Your task to perform on an android device: visit the assistant section in the google photos Image 0: 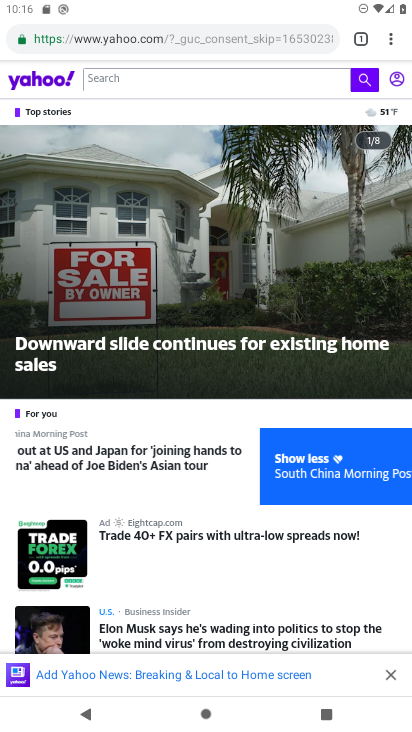
Step 0: press home button
Your task to perform on an android device: visit the assistant section in the google photos Image 1: 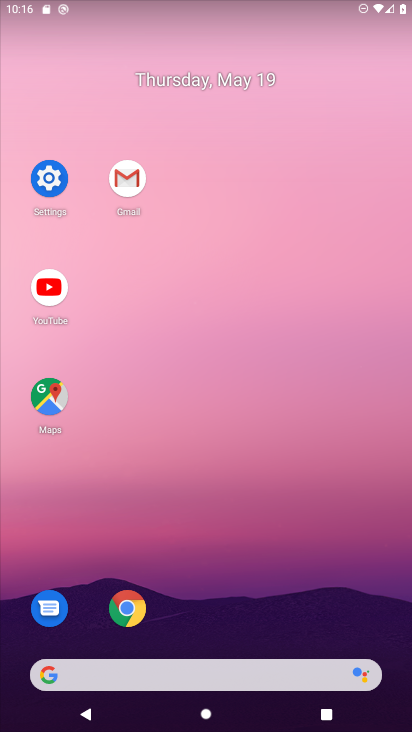
Step 1: drag from (260, 629) to (245, 203)
Your task to perform on an android device: visit the assistant section in the google photos Image 2: 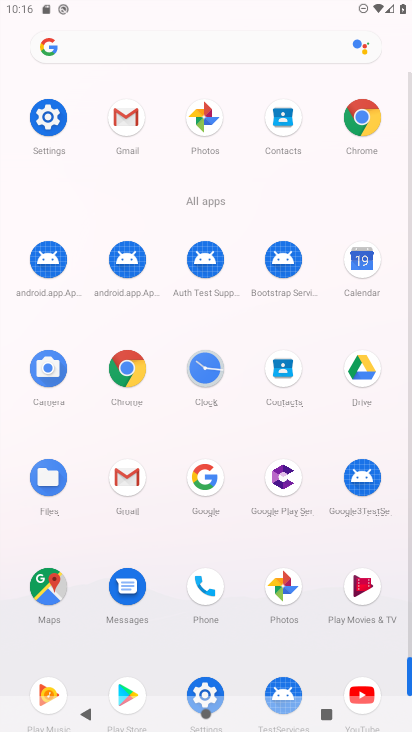
Step 2: drag from (288, 586) to (137, 318)
Your task to perform on an android device: visit the assistant section in the google photos Image 3: 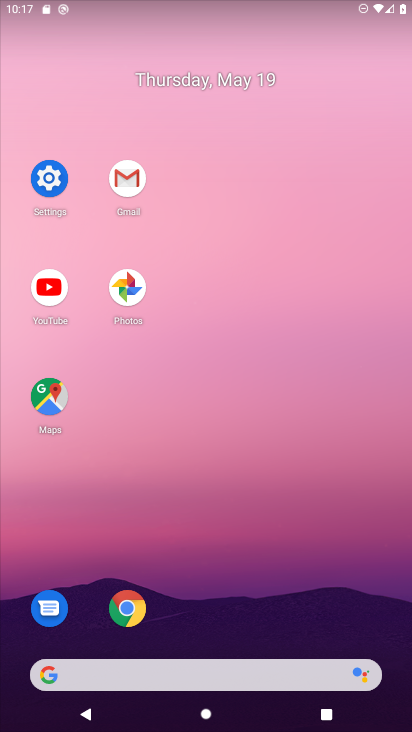
Step 3: click (133, 297)
Your task to perform on an android device: visit the assistant section in the google photos Image 4: 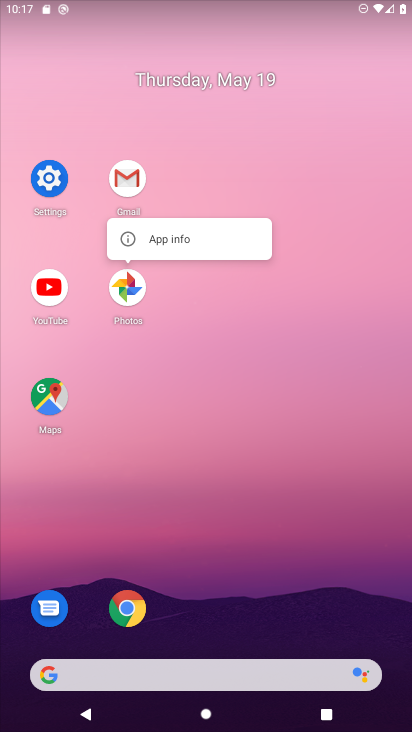
Step 4: click (133, 297)
Your task to perform on an android device: visit the assistant section in the google photos Image 5: 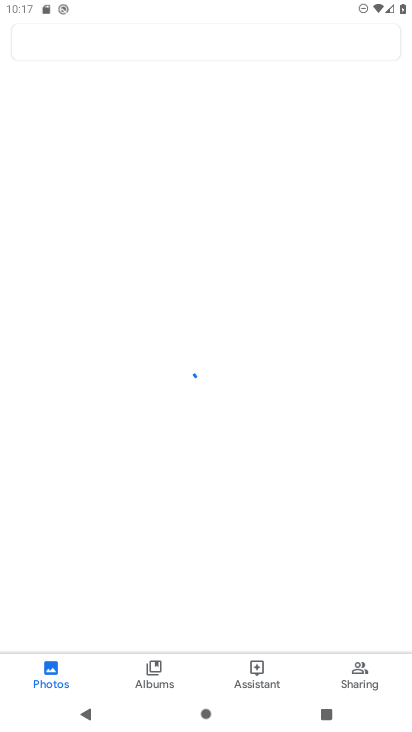
Step 5: click (253, 682)
Your task to perform on an android device: visit the assistant section in the google photos Image 6: 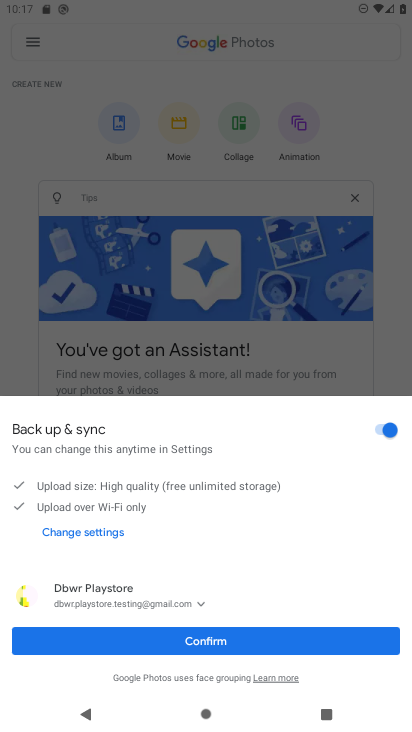
Step 6: click (307, 638)
Your task to perform on an android device: visit the assistant section in the google photos Image 7: 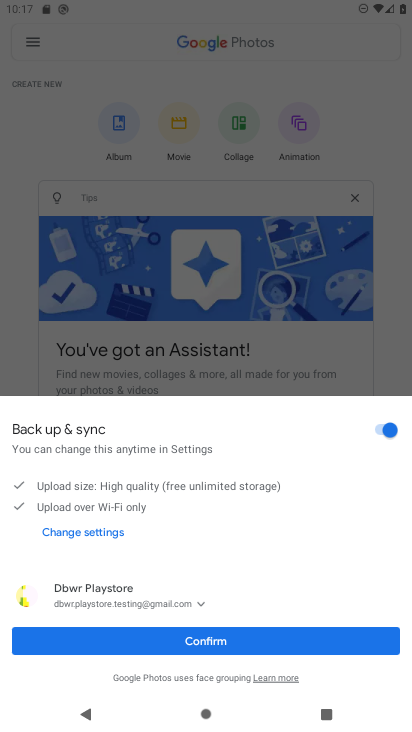
Step 7: click (327, 637)
Your task to perform on an android device: visit the assistant section in the google photos Image 8: 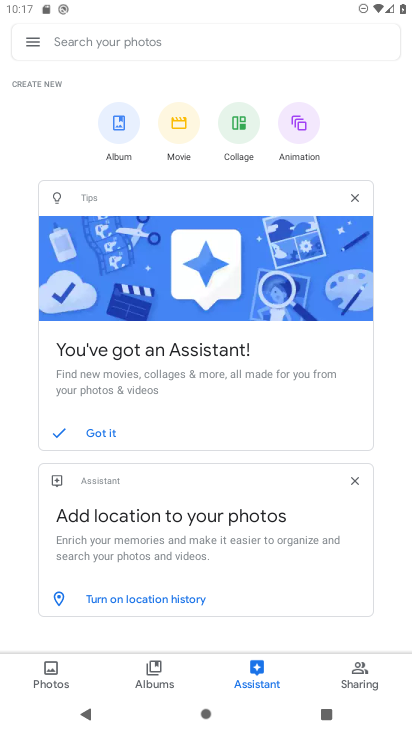
Step 8: task complete